Your task to perform on an android device: check google app version Image 0: 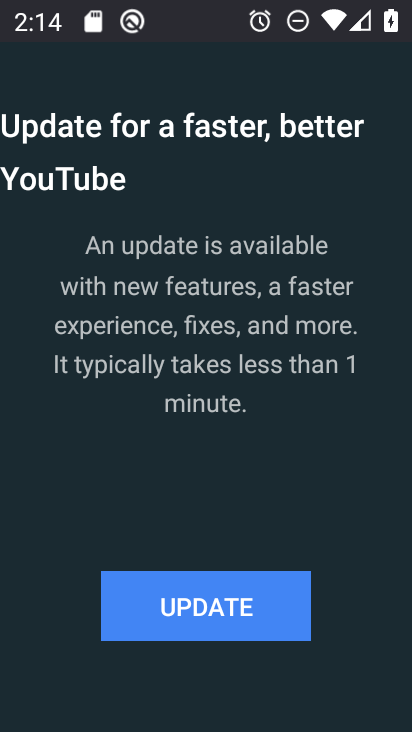
Step 0: press back button
Your task to perform on an android device: check google app version Image 1: 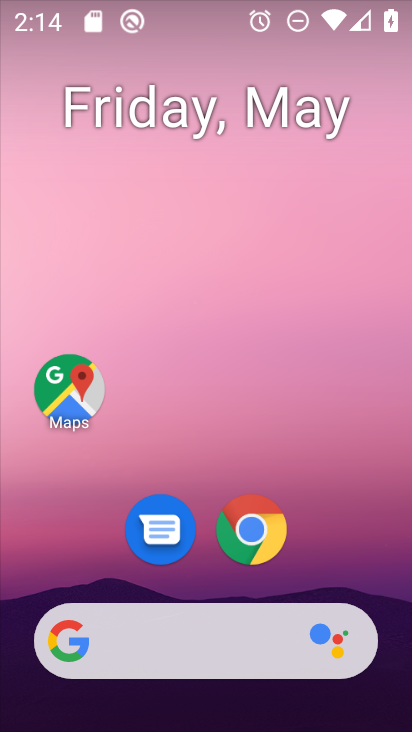
Step 1: drag from (395, 720) to (344, 264)
Your task to perform on an android device: check google app version Image 2: 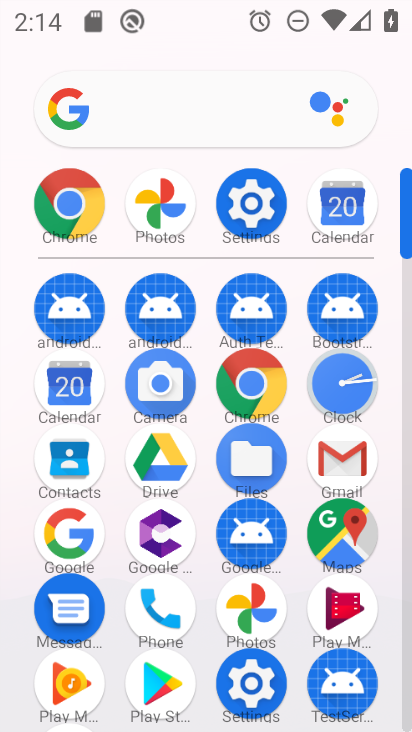
Step 2: click (67, 526)
Your task to perform on an android device: check google app version Image 3: 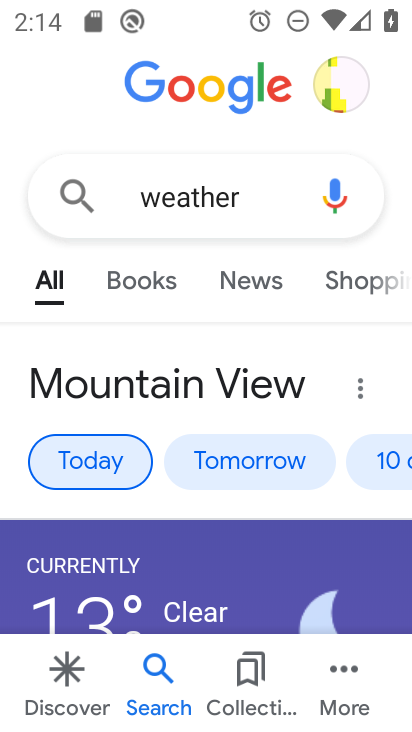
Step 3: click (343, 705)
Your task to perform on an android device: check google app version Image 4: 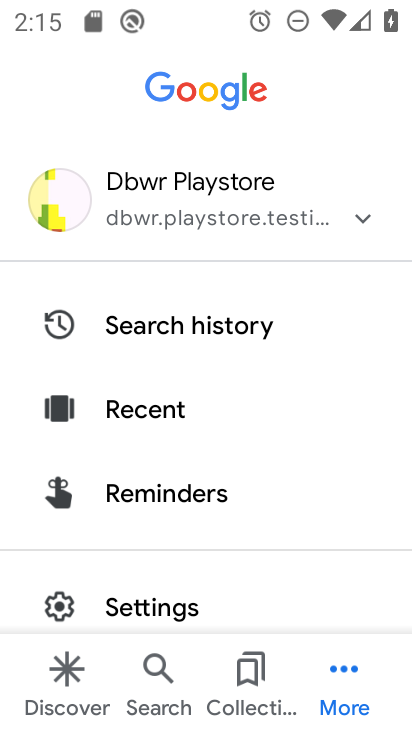
Step 4: click (136, 605)
Your task to perform on an android device: check google app version Image 5: 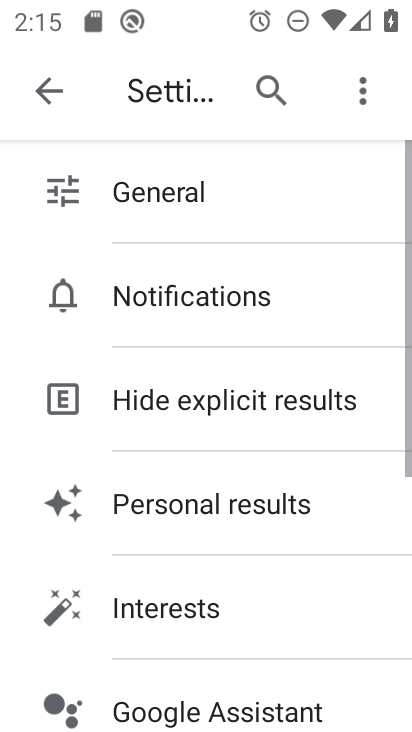
Step 5: drag from (321, 594) to (293, 316)
Your task to perform on an android device: check google app version Image 6: 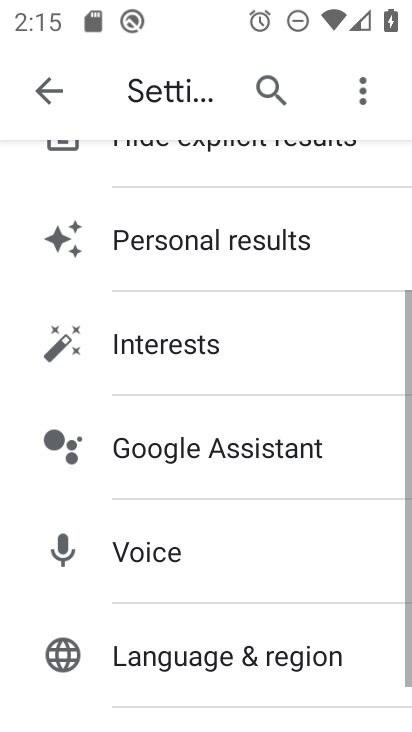
Step 6: drag from (338, 582) to (308, 412)
Your task to perform on an android device: check google app version Image 7: 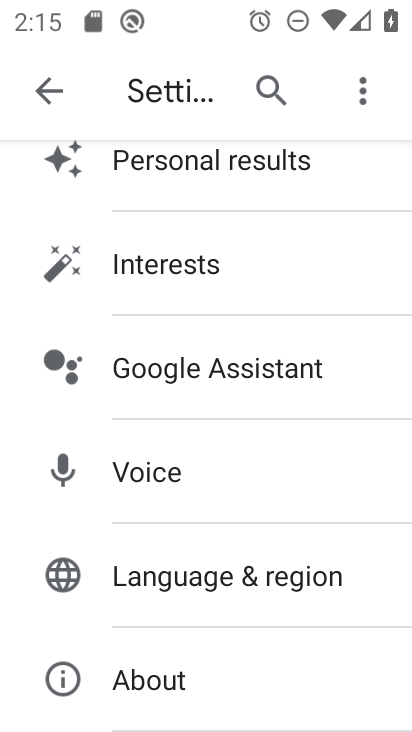
Step 7: click (125, 681)
Your task to perform on an android device: check google app version Image 8: 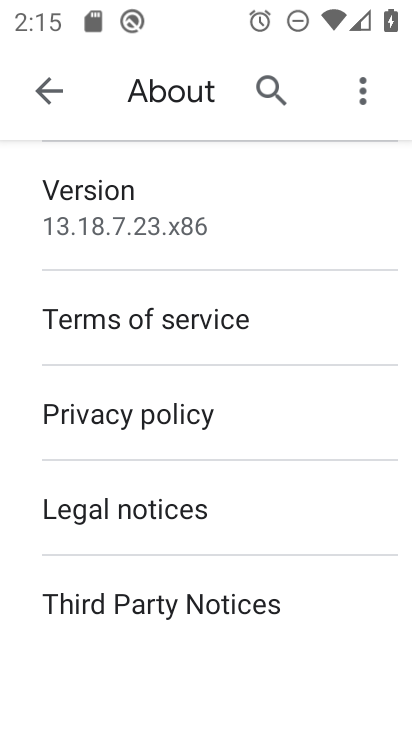
Step 8: click (117, 218)
Your task to perform on an android device: check google app version Image 9: 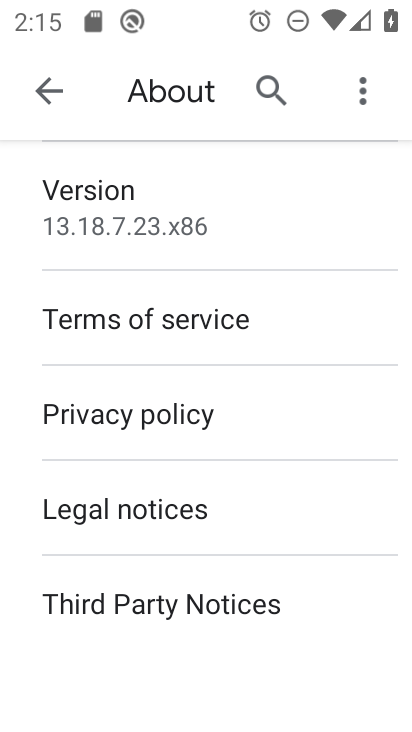
Step 9: task complete